Your task to perform on an android device: install app "Clock" Image 0: 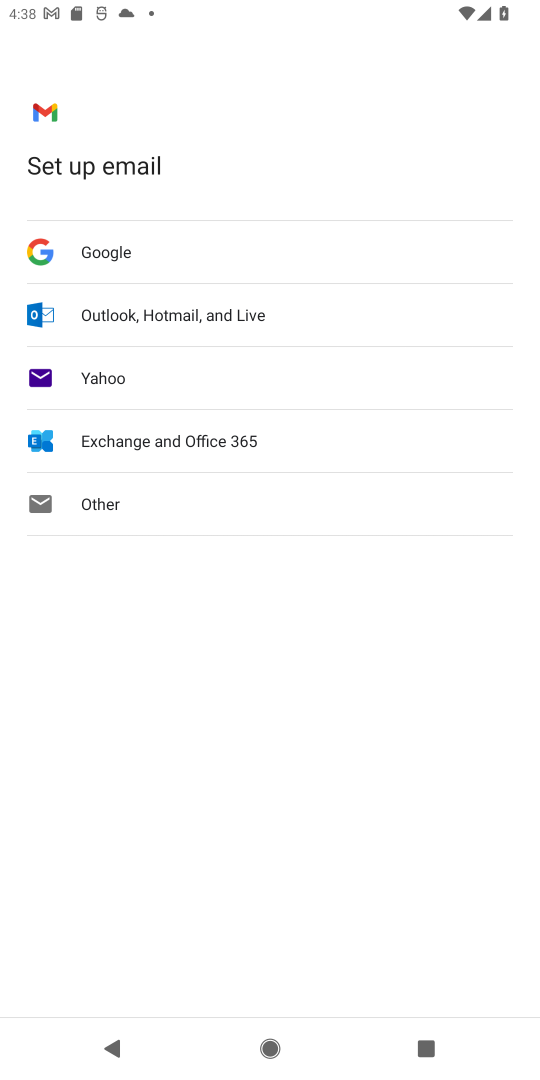
Step 0: press home button
Your task to perform on an android device: install app "Clock" Image 1: 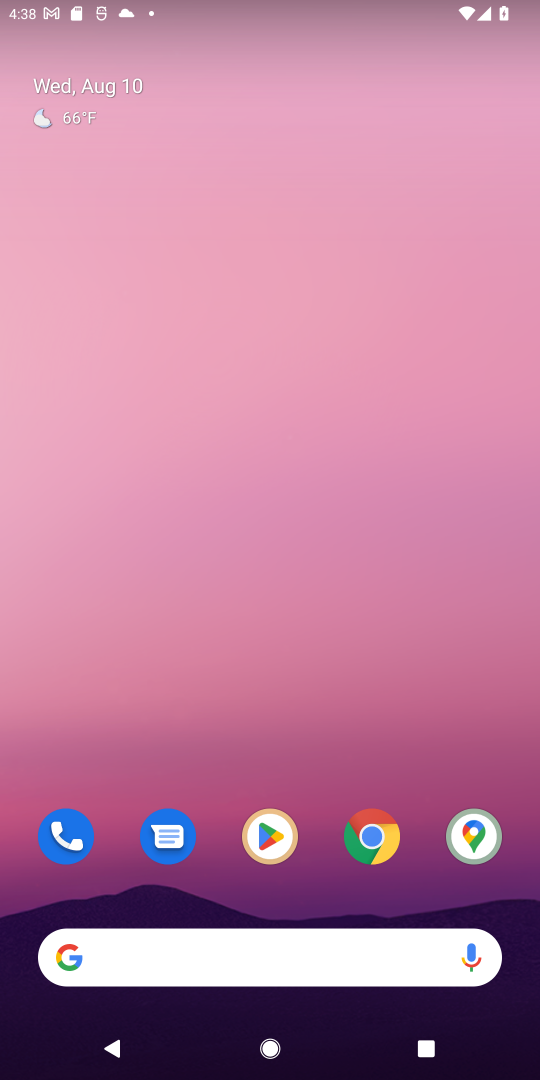
Step 1: drag from (172, 802) to (424, 220)
Your task to perform on an android device: install app "Clock" Image 2: 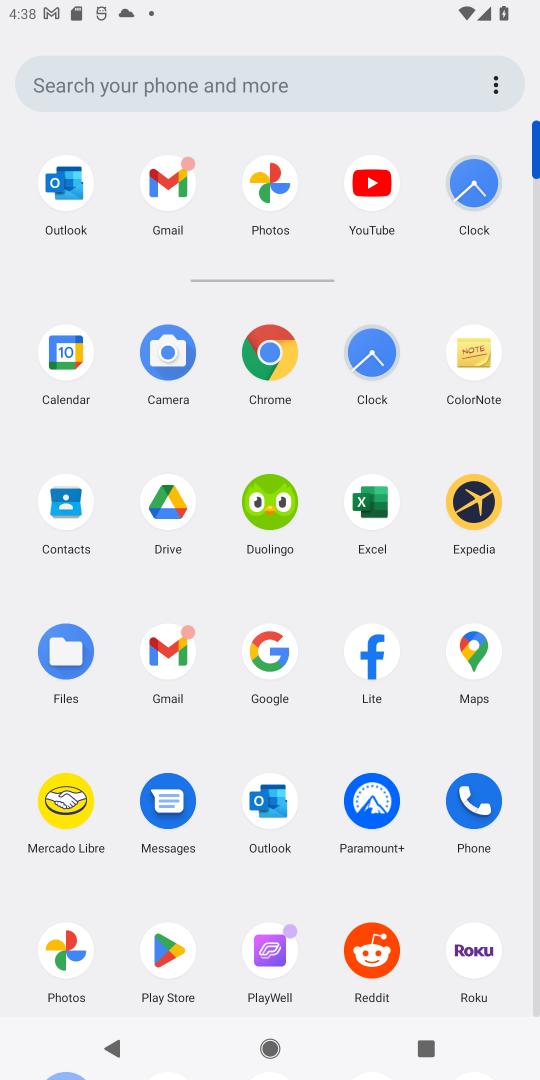
Step 2: click (159, 944)
Your task to perform on an android device: install app "Clock" Image 3: 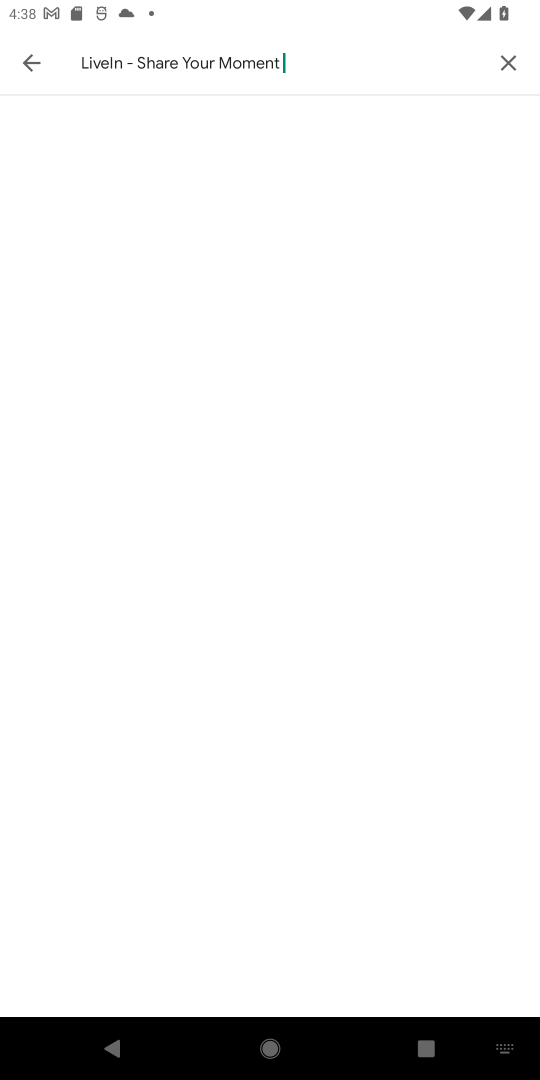
Step 3: click (515, 68)
Your task to perform on an android device: install app "Clock" Image 4: 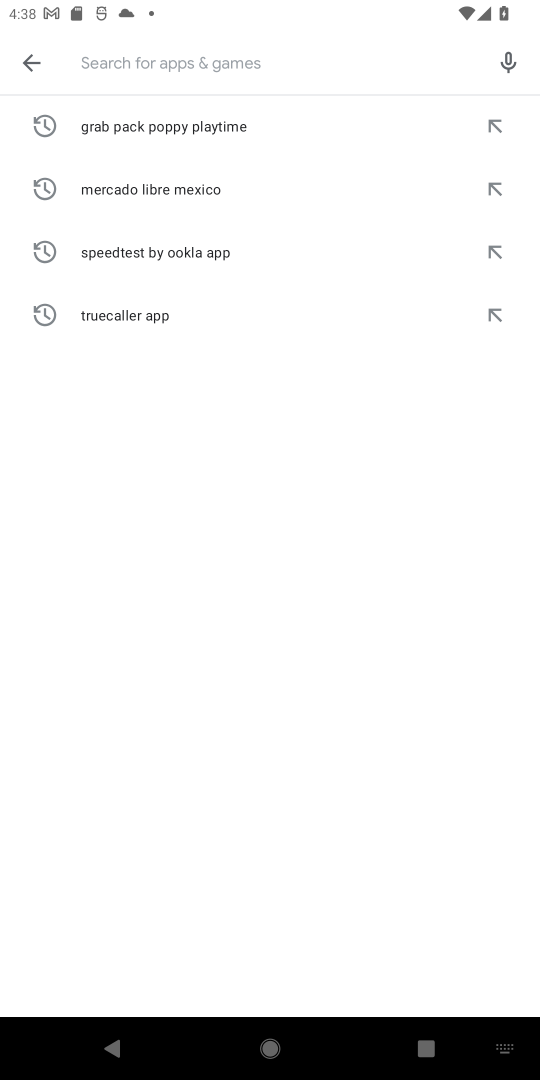
Step 4: click (210, 58)
Your task to perform on an android device: install app "Clock" Image 5: 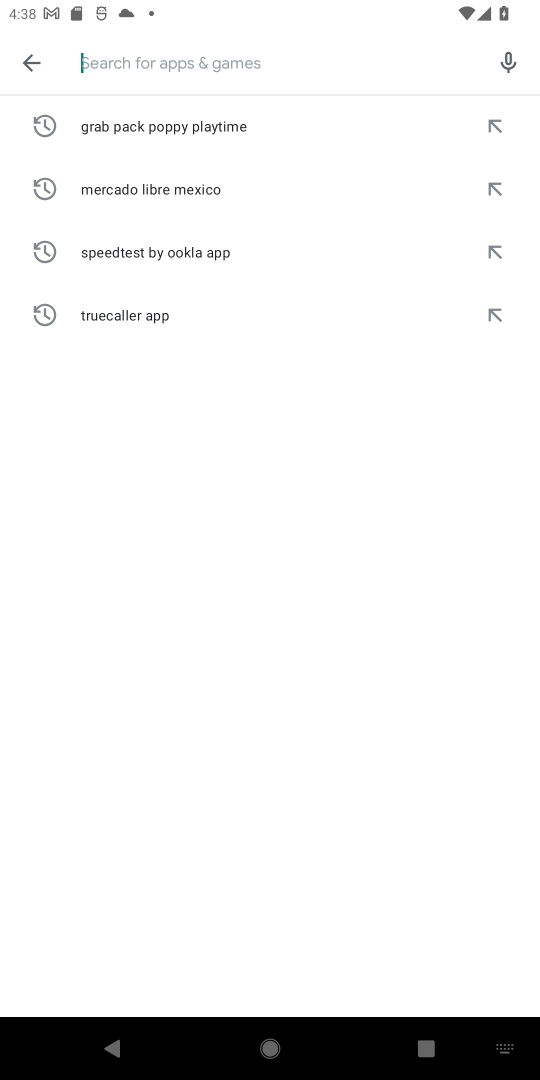
Step 5: type "clock "
Your task to perform on an android device: install app "Clock" Image 6: 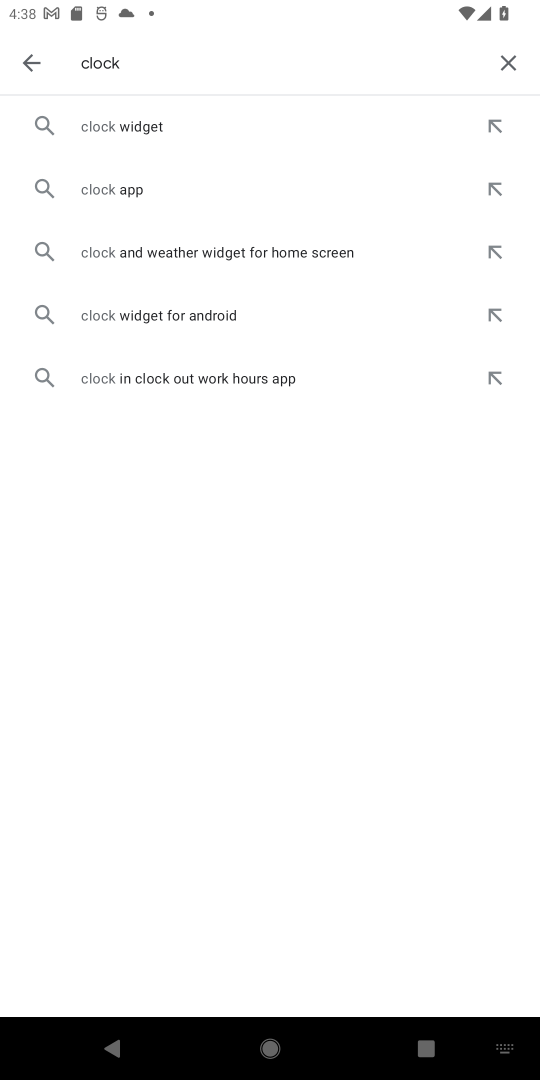
Step 6: click (135, 205)
Your task to perform on an android device: install app "Clock" Image 7: 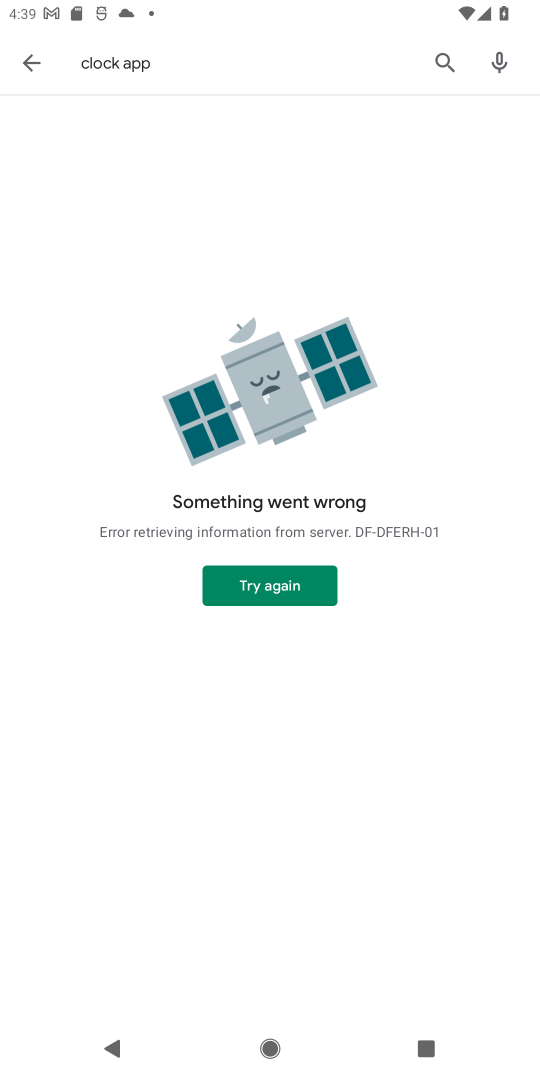
Step 7: task complete